Your task to perform on an android device: Go to Amazon Image 0: 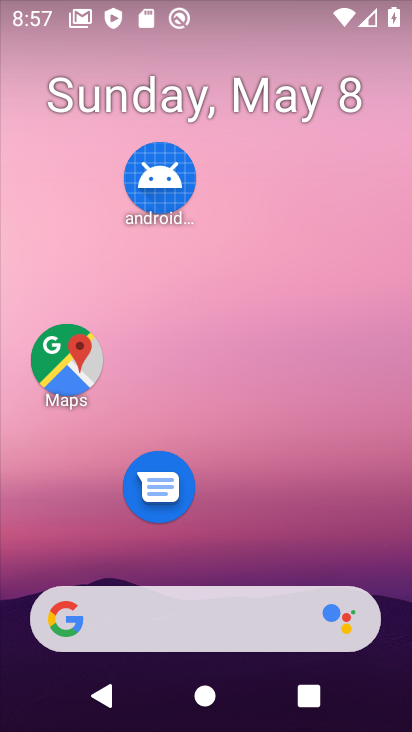
Step 0: drag from (307, 557) to (230, 11)
Your task to perform on an android device: Go to Amazon Image 1: 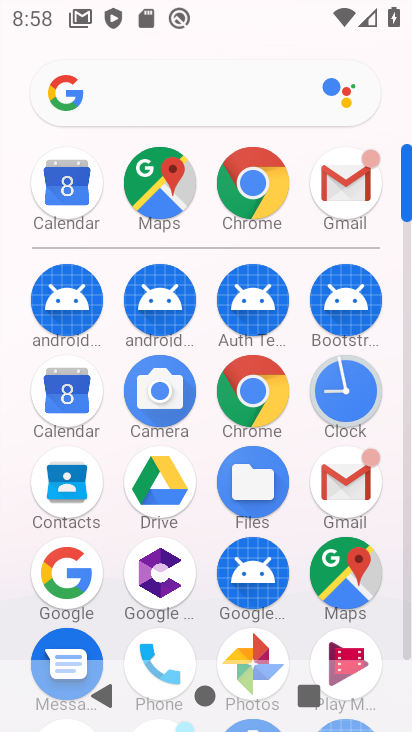
Step 1: click (256, 211)
Your task to perform on an android device: Go to Amazon Image 2: 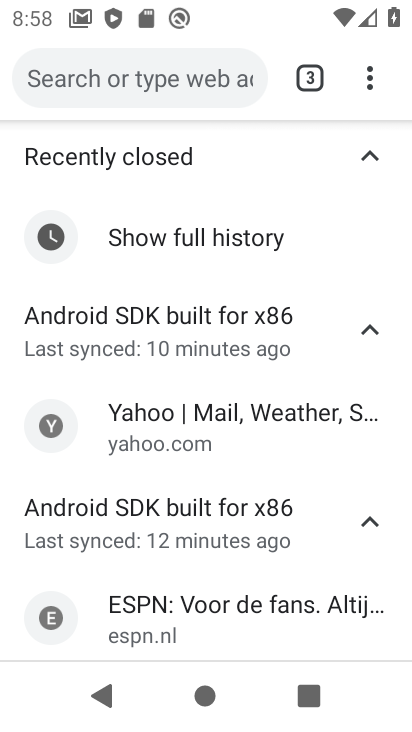
Step 2: click (307, 78)
Your task to perform on an android device: Go to Amazon Image 3: 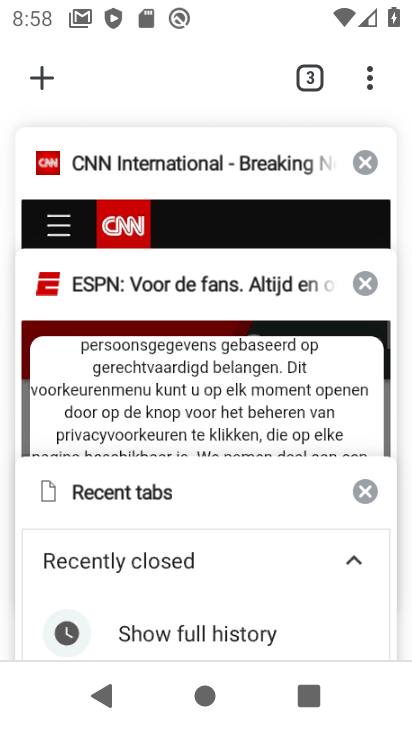
Step 3: click (366, 488)
Your task to perform on an android device: Go to Amazon Image 4: 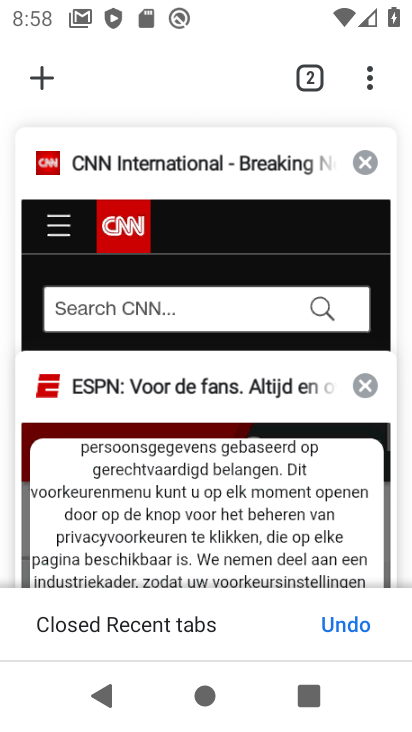
Step 4: click (364, 390)
Your task to perform on an android device: Go to Amazon Image 5: 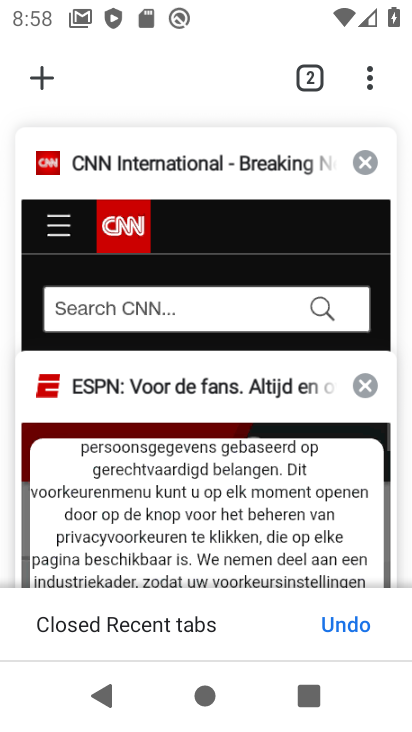
Step 5: click (364, 169)
Your task to perform on an android device: Go to Amazon Image 6: 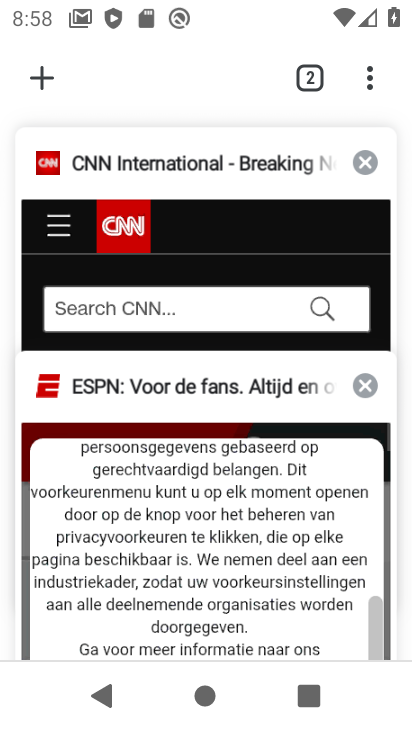
Step 6: click (46, 73)
Your task to perform on an android device: Go to Amazon Image 7: 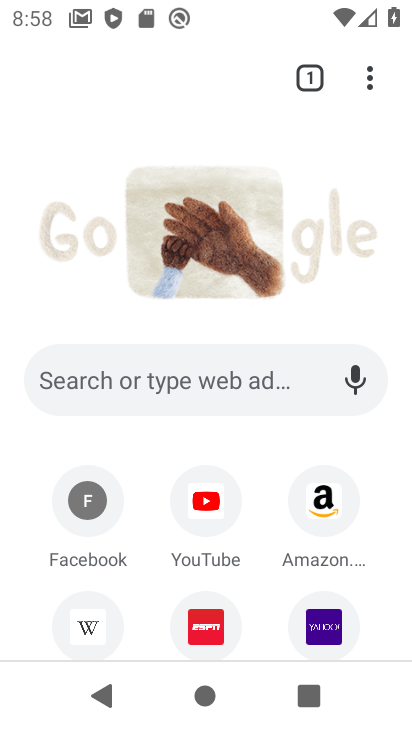
Step 7: click (309, 499)
Your task to perform on an android device: Go to Amazon Image 8: 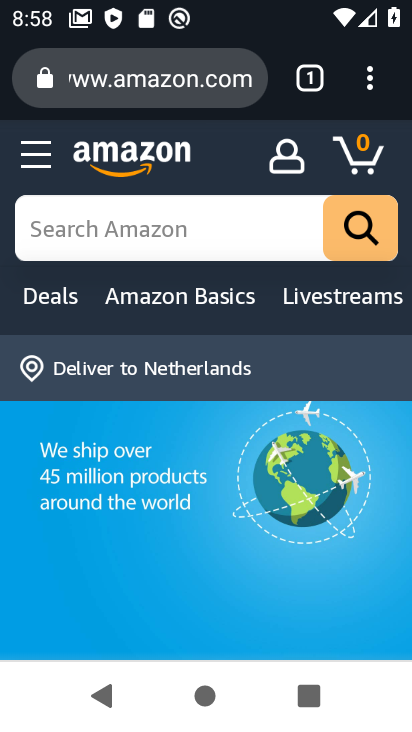
Step 8: task complete